Your task to perform on an android device: Go to settings Image 0: 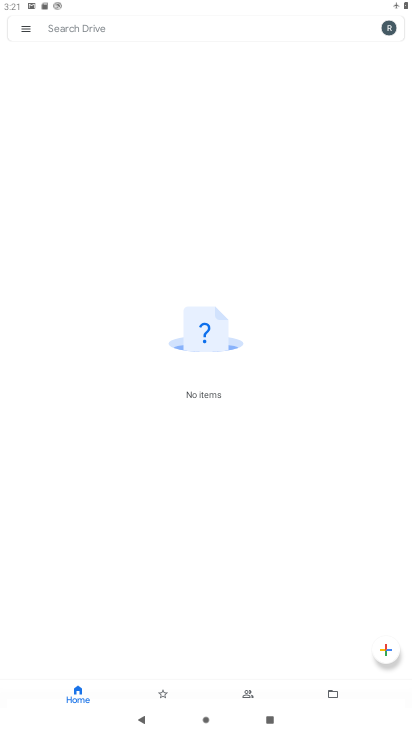
Step 0: press home button
Your task to perform on an android device: Go to settings Image 1: 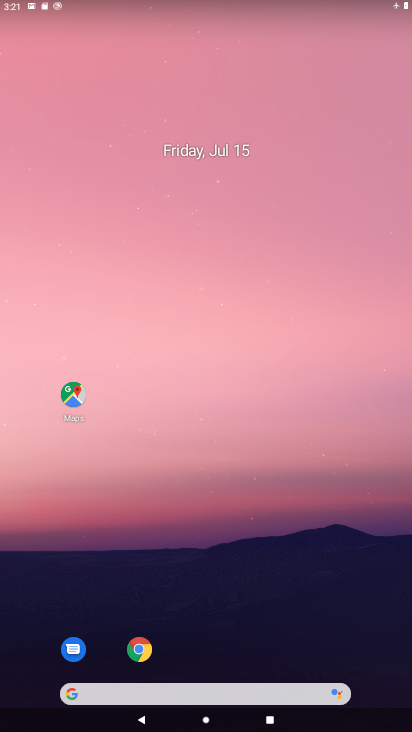
Step 1: drag from (379, 655) to (327, 34)
Your task to perform on an android device: Go to settings Image 2: 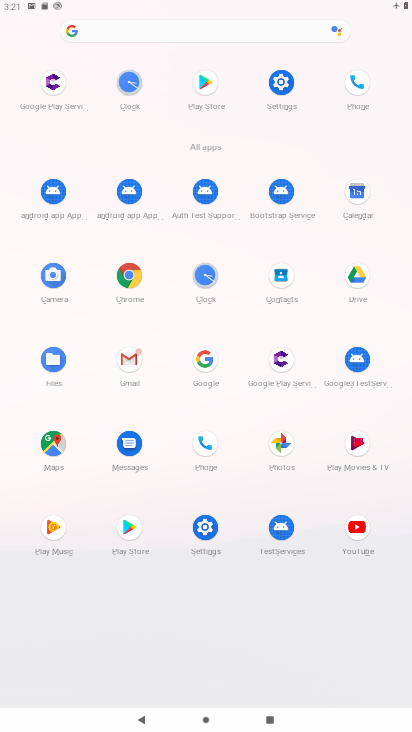
Step 2: click (204, 528)
Your task to perform on an android device: Go to settings Image 3: 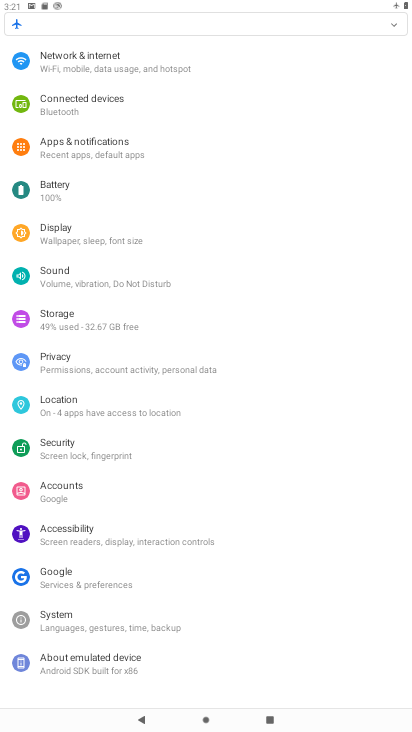
Step 3: task complete